Your task to perform on an android device: Open the map Image 0: 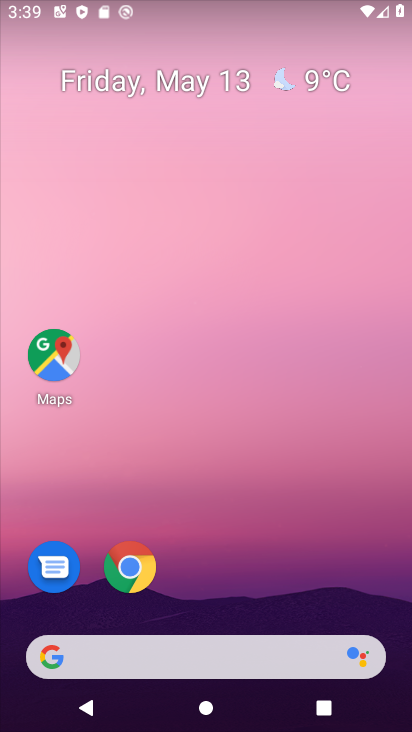
Step 0: click (51, 360)
Your task to perform on an android device: Open the map Image 1: 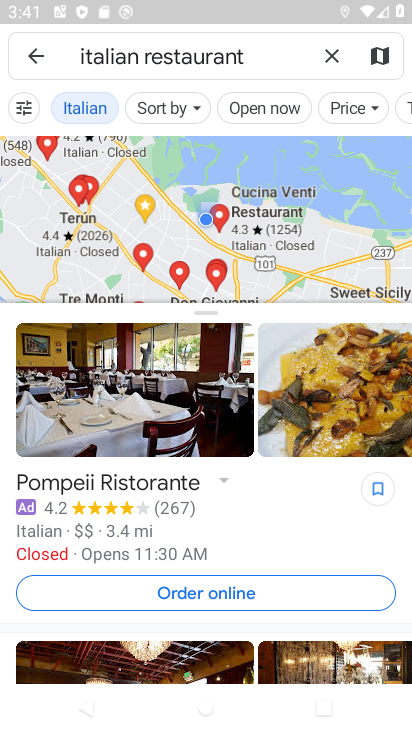
Step 1: task complete